Your task to perform on an android device: Go to display settings Image 0: 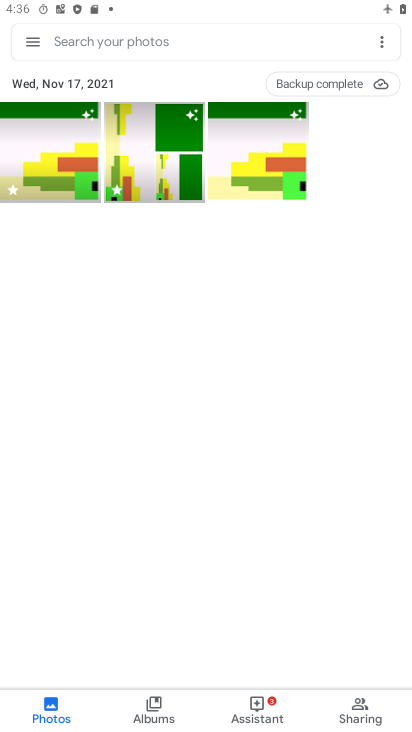
Step 0: press home button
Your task to perform on an android device: Go to display settings Image 1: 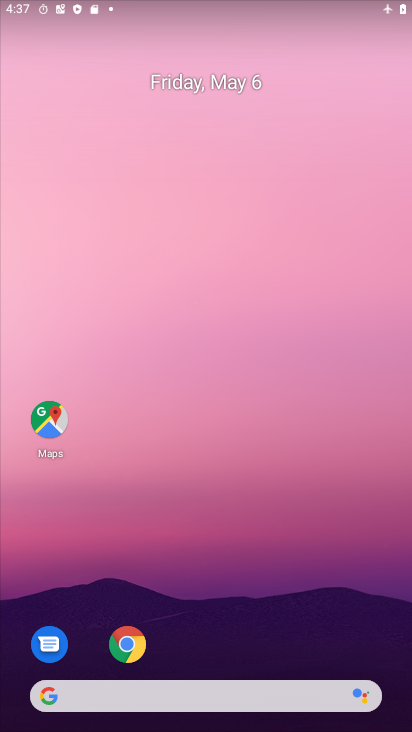
Step 1: drag from (296, 641) to (146, 31)
Your task to perform on an android device: Go to display settings Image 2: 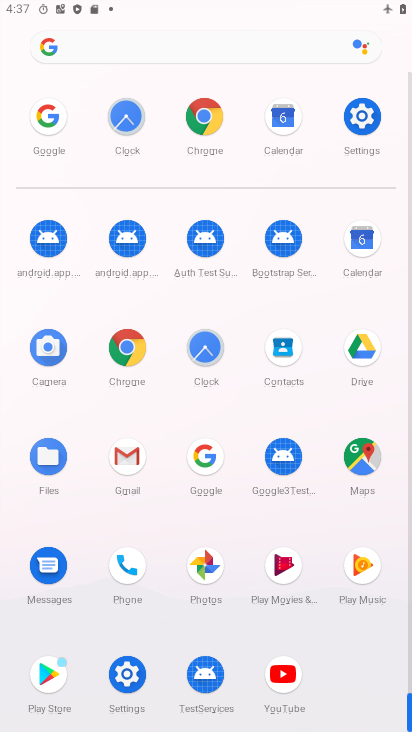
Step 2: click (363, 125)
Your task to perform on an android device: Go to display settings Image 3: 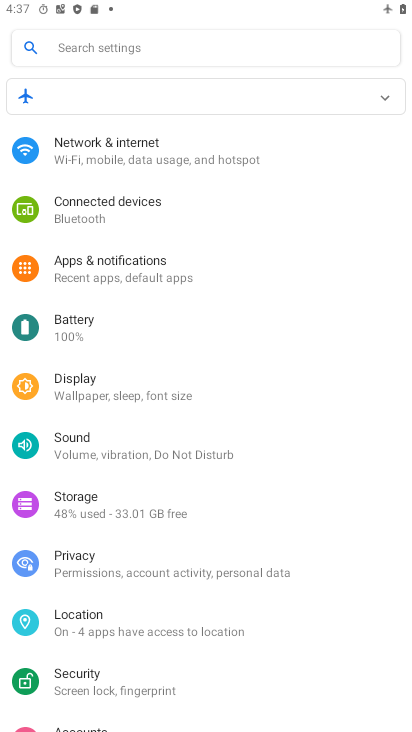
Step 3: click (78, 392)
Your task to perform on an android device: Go to display settings Image 4: 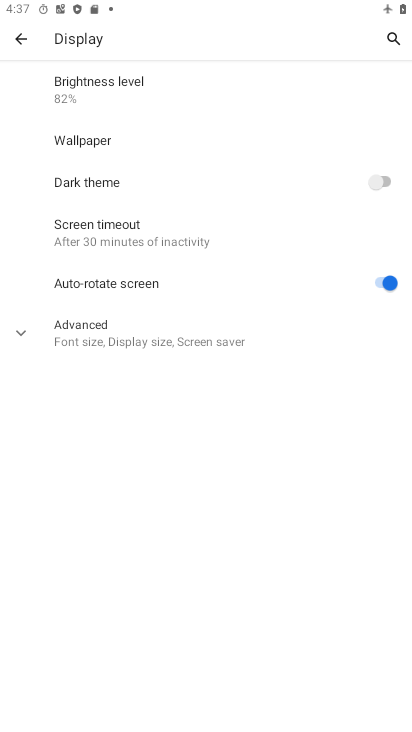
Step 4: task complete